Your task to perform on an android device: turn on javascript in the chrome app Image 0: 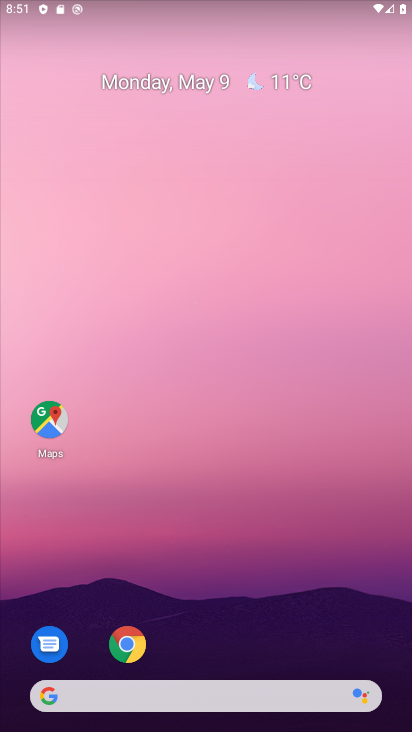
Step 0: drag from (215, 657) to (183, 78)
Your task to perform on an android device: turn on javascript in the chrome app Image 1: 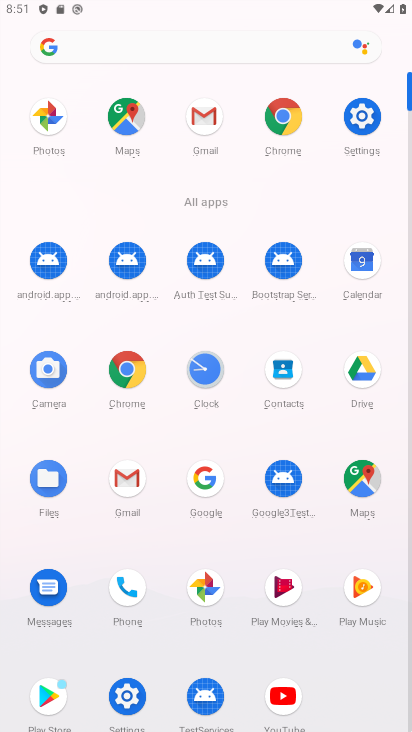
Step 1: click (280, 130)
Your task to perform on an android device: turn on javascript in the chrome app Image 2: 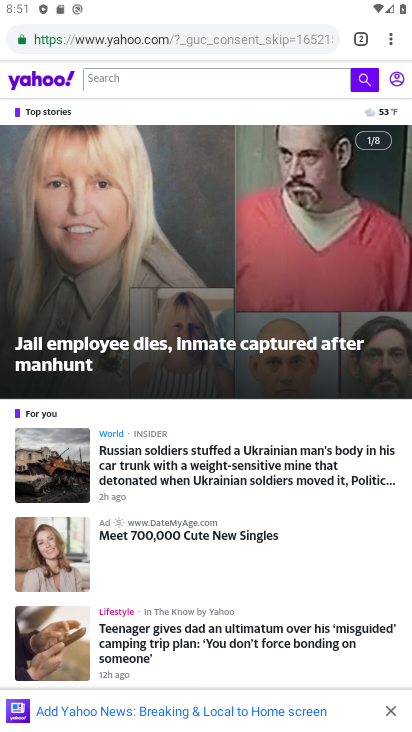
Step 2: click (387, 43)
Your task to perform on an android device: turn on javascript in the chrome app Image 3: 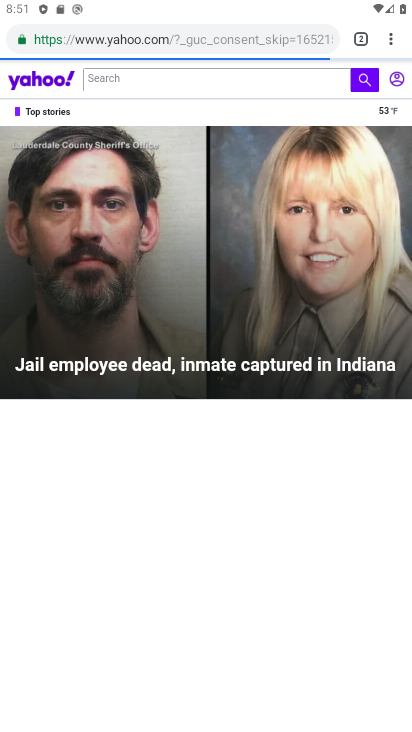
Step 3: drag from (388, 39) to (264, 438)
Your task to perform on an android device: turn on javascript in the chrome app Image 4: 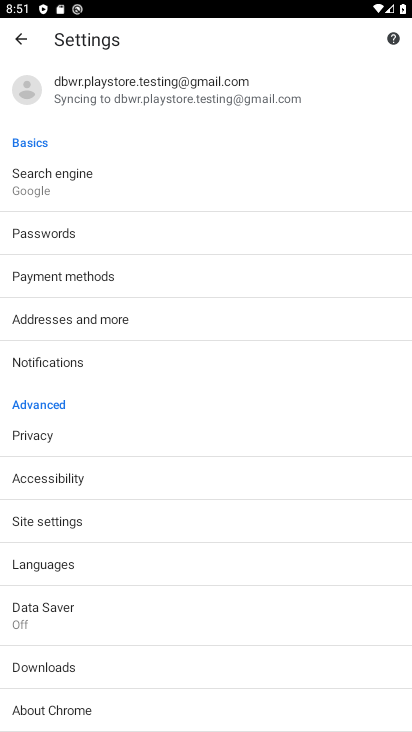
Step 4: drag from (278, 545) to (279, 149)
Your task to perform on an android device: turn on javascript in the chrome app Image 5: 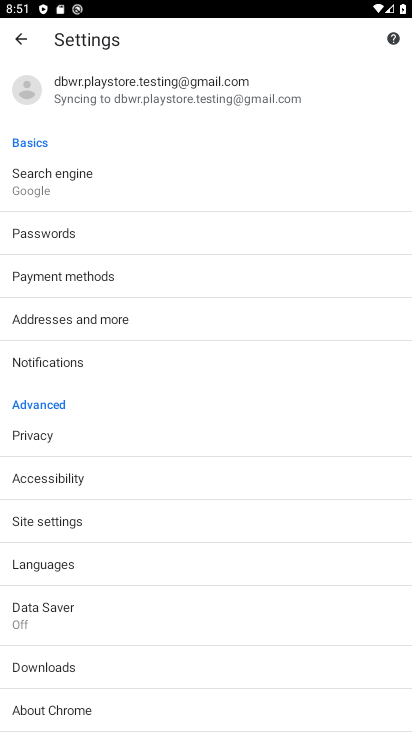
Step 5: click (55, 534)
Your task to perform on an android device: turn on javascript in the chrome app Image 6: 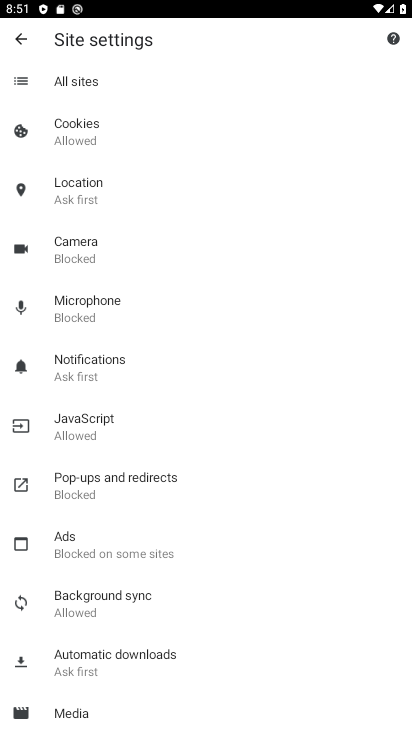
Step 6: click (80, 435)
Your task to perform on an android device: turn on javascript in the chrome app Image 7: 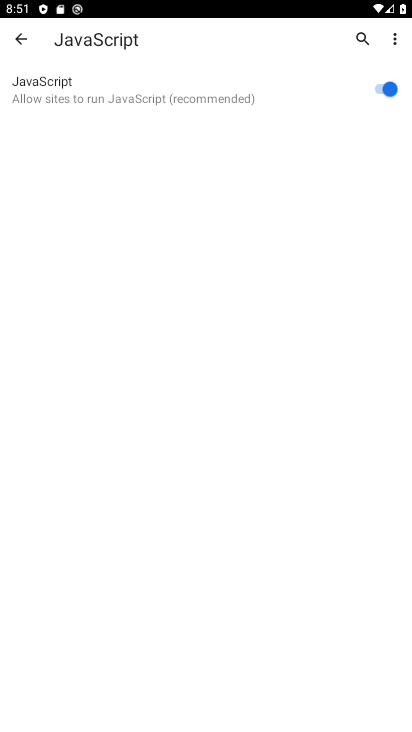
Step 7: task complete